Your task to perform on an android device: Open the phone app and click the voicemail tab. Image 0: 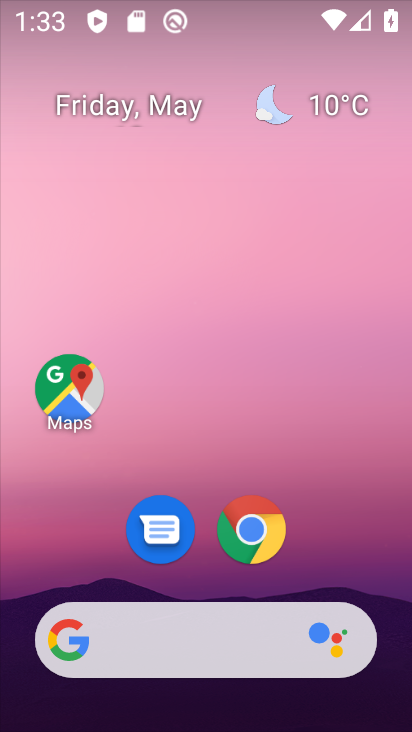
Step 0: drag from (401, 516) to (294, 72)
Your task to perform on an android device: Open the phone app and click the voicemail tab. Image 1: 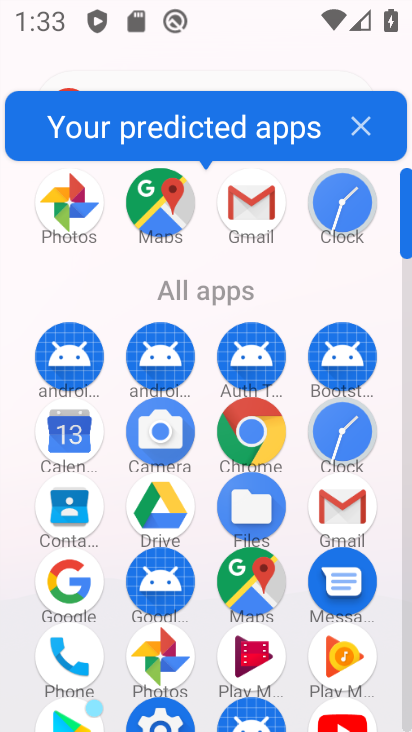
Step 1: click (74, 640)
Your task to perform on an android device: Open the phone app and click the voicemail tab. Image 2: 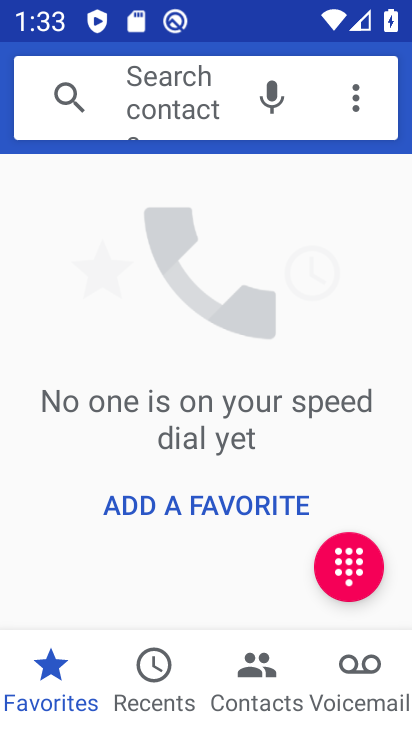
Step 2: click (361, 695)
Your task to perform on an android device: Open the phone app and click the voicemail tab. Image 3: 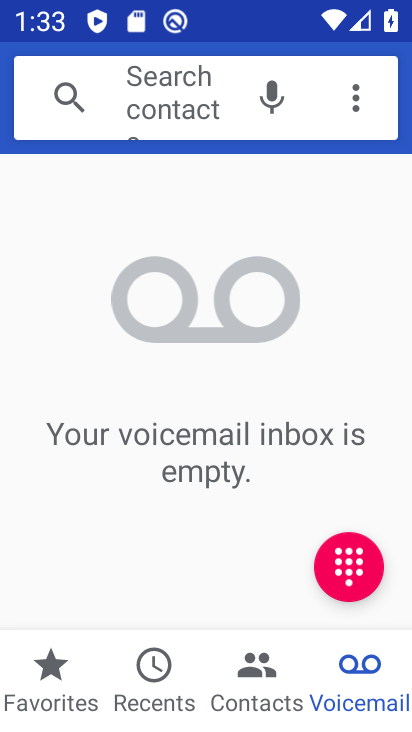
Step 3: task complete